Your task to perform on an android device: Open Google Maps and go to "Timeline" Image 0: 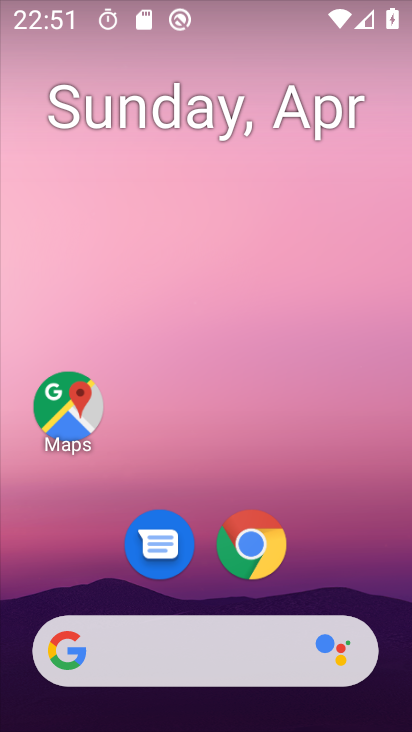
Step 0: drag from (298, 436) to (309, 254)
Your task to perform on an android device: Open Google Maps and go to "Timeline" Image 1: 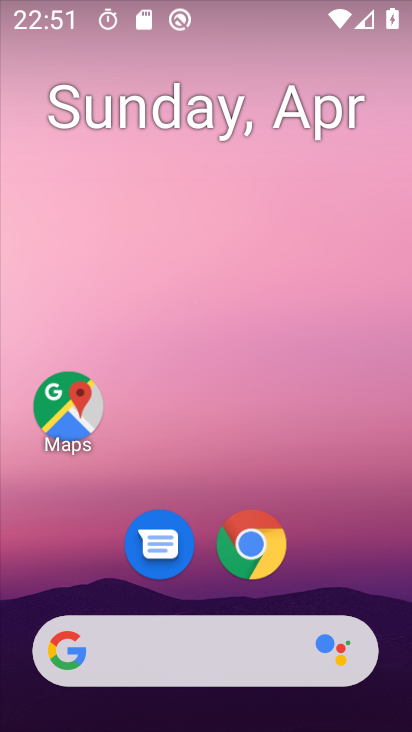
Step 1: drag from (341, 595) to (362, 166)
Your task to perform on an android device: Open Google Maps and go to "Timeline" Image 2: 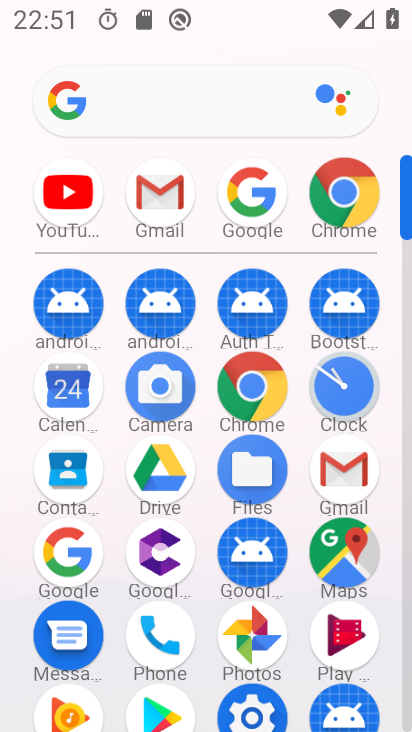
Step 2: click (353, 542)
Your task to perform on an android device: Open Google Maps and go to "Timeline" Image 3: 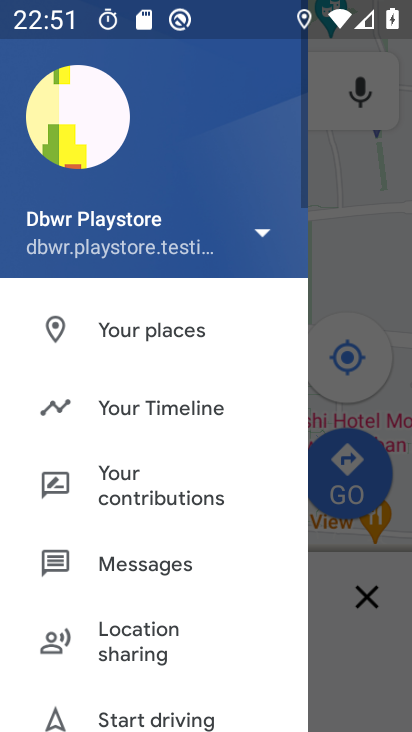
Step 3: click (132, 416)
Your task to perform on an android device: Open Google Maps and go to "Timeline" Image 4: 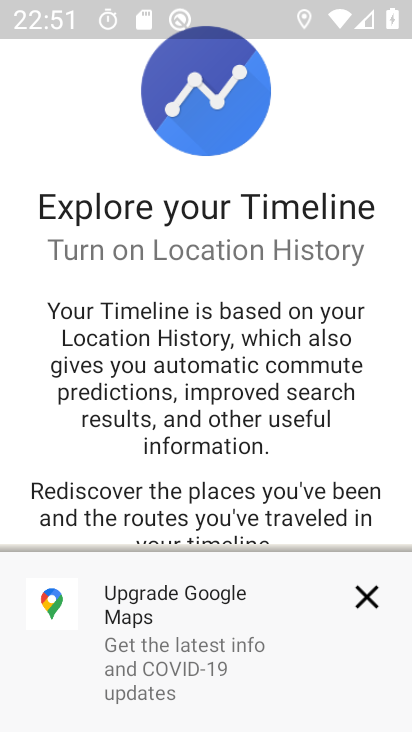
Step 4: click (374, 597)
Your task to perform on an android device: Open Google Maps and go to "Timeline" Image 5: 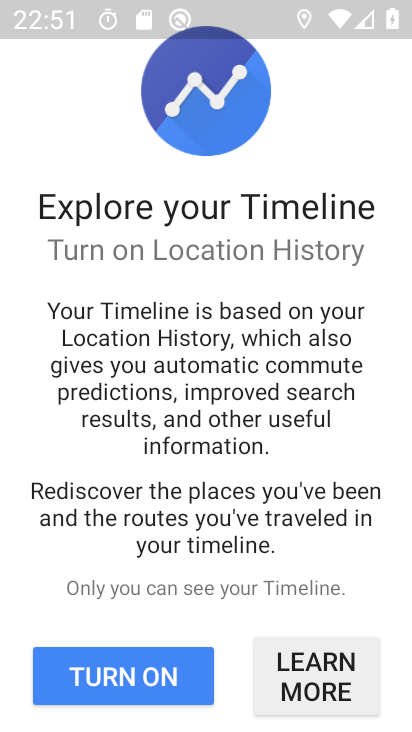
Step 5: drag from (211, 565) to (273, 204)
Your task to perform on an android device: Open Google Maps and go to "Timeline" Image 6: 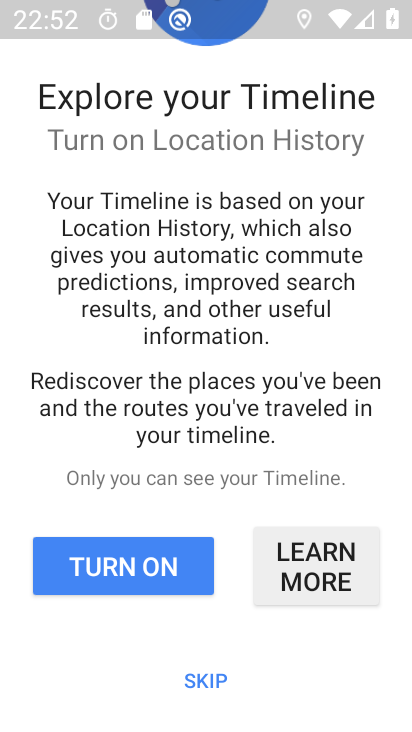
Step 6: click (214, 684)
Your task to perform on an android device: Open Google Maps and go to "Timeline" Image 7: 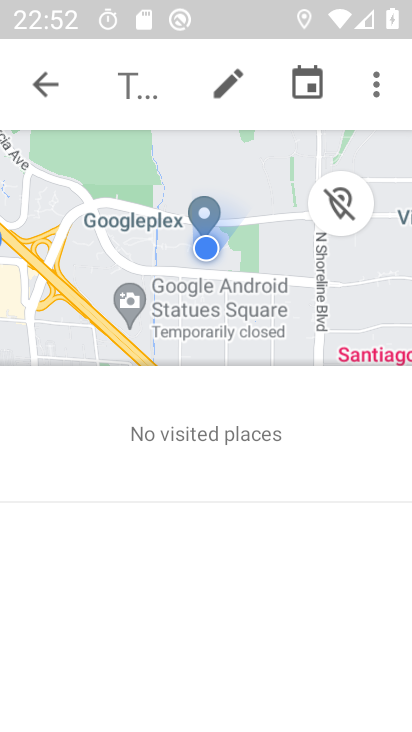
Step 7: task complete